Your task to perform on an android device: Open calendar and show me the third week of next month Image 0: 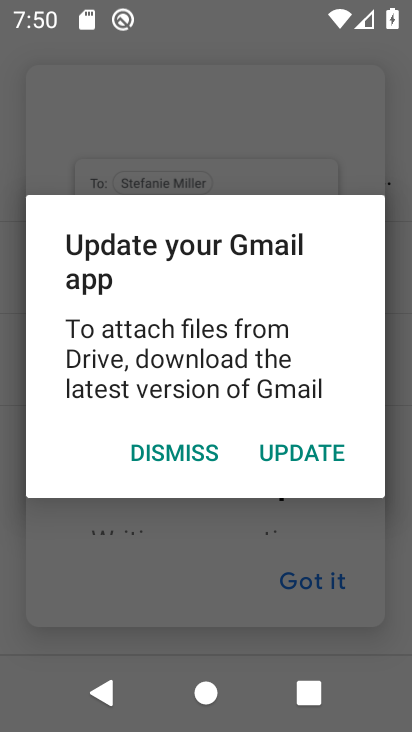
Step 0: press home button
Your task to perform on an android device: Open calendar and show me the third week of next month Image 1: 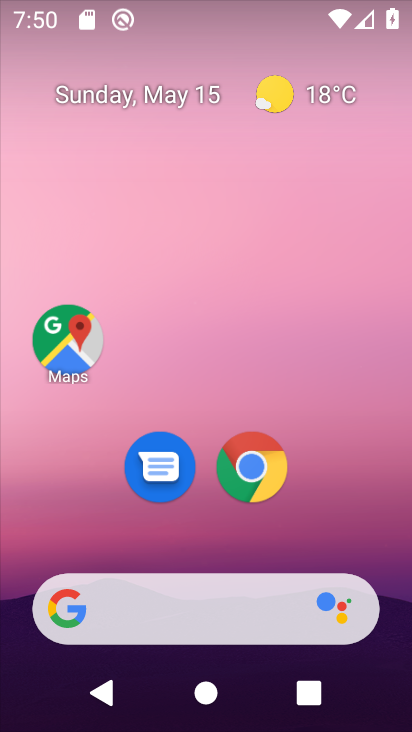
Step 1: drag from (274, 542) to (286, 30)
Your task to perform on an android device: Open calendar and show me the third week of next month Image 2: 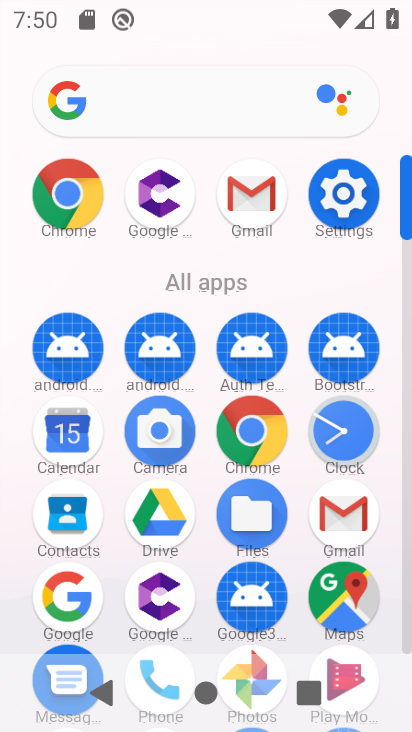
Step 2: click (53, 442)
Your task to perform on an android device: Open calendar and show me the third week of next month Image 3: 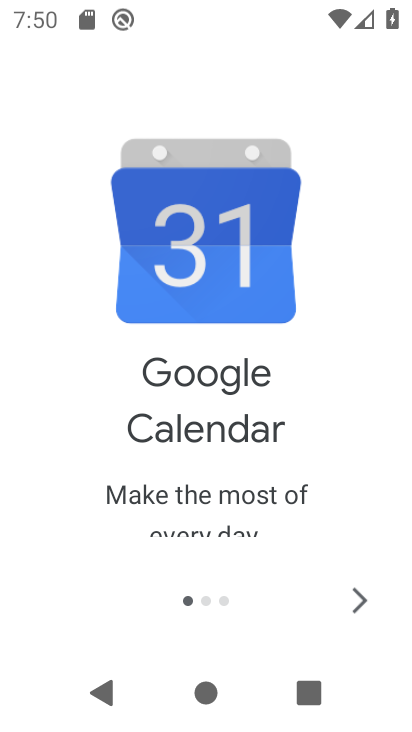
Step 3: click (359, 596)
Your task to perform on an android device: Open calendar and show me the third week of next month Image 4: 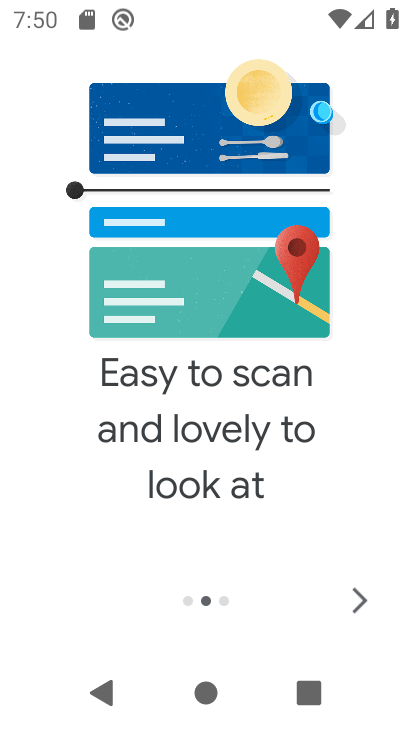
Step 4: click (359, 595)
Your task to perform on an android device: Open calendar and show me the third week of next month Image 5: 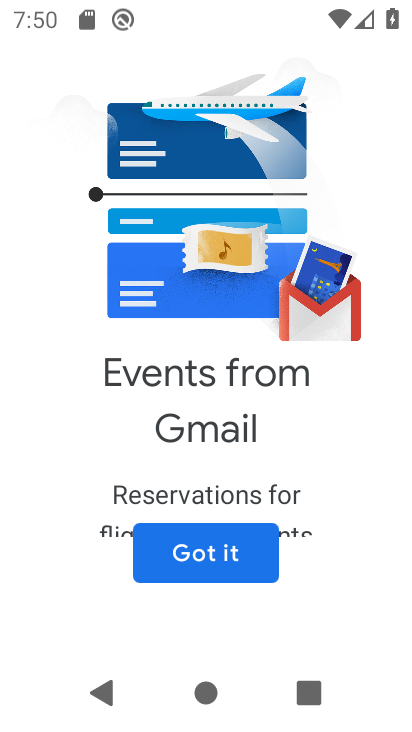
Step 5: click (183, 544)
Your task to perform on an android device: Open calendar and show me the third week of next month Image 6: 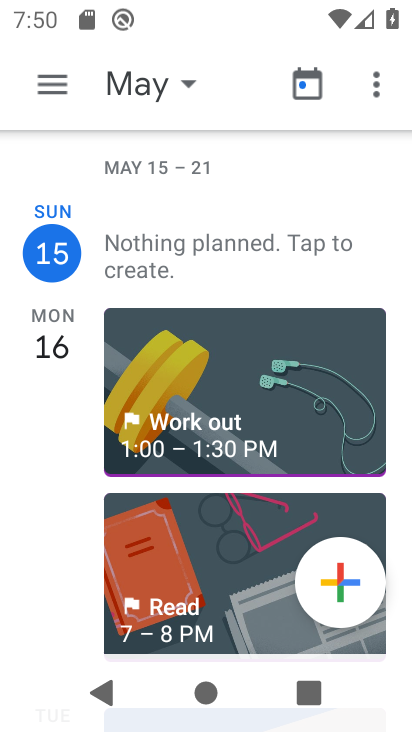
Step 6: click (130, 85)
Your task to perform on an android device: Open calendar and show me the third week of next month Image 7: 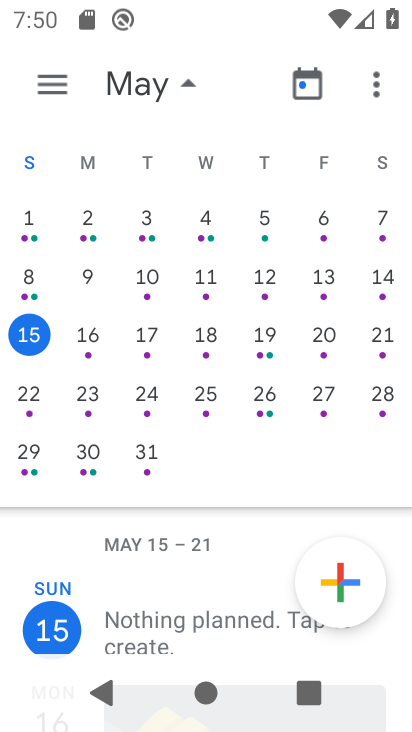
Step 7: drag from (396, 201) to (24, 256)
Your task to perform on an android device: Open calendar and show me the third week of next month Image 8: 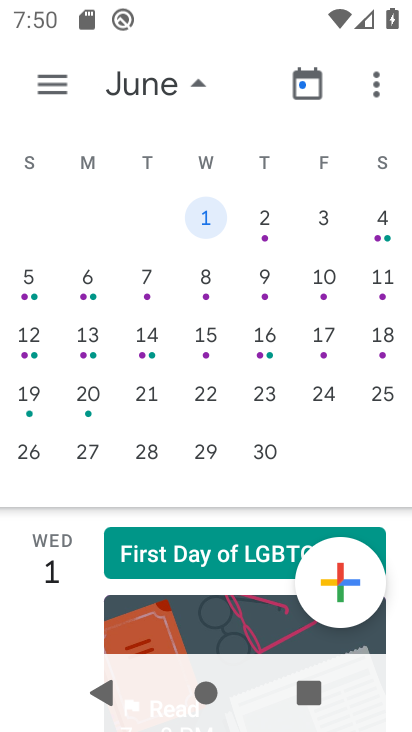
Step 8: click (38, 340)
Your task to perform on an android device: Open calendar and show me the third week of next month Image 9: 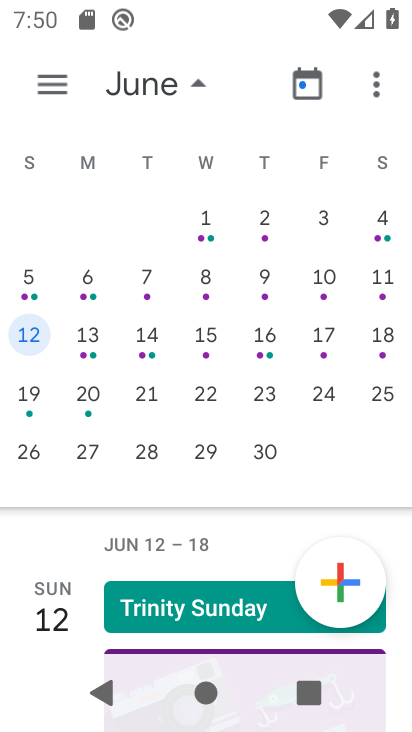
Step 9: task complete